Your task to perform on an android device: turn pop-ups off in chrome Image 0: 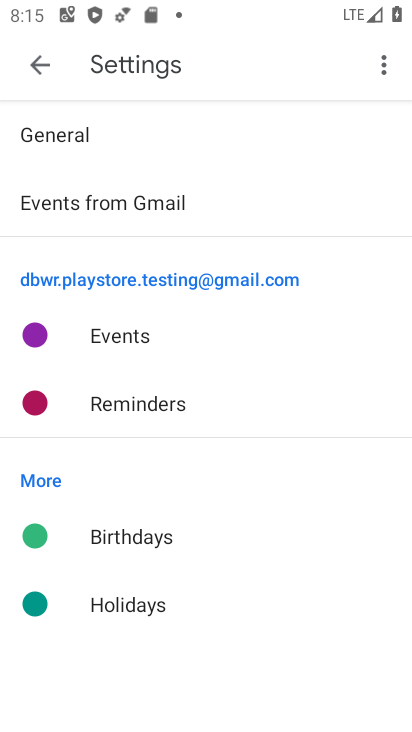
Step 0: press home button
Your task to perform on an android device: turn pop-ups off in chrome Image 1: 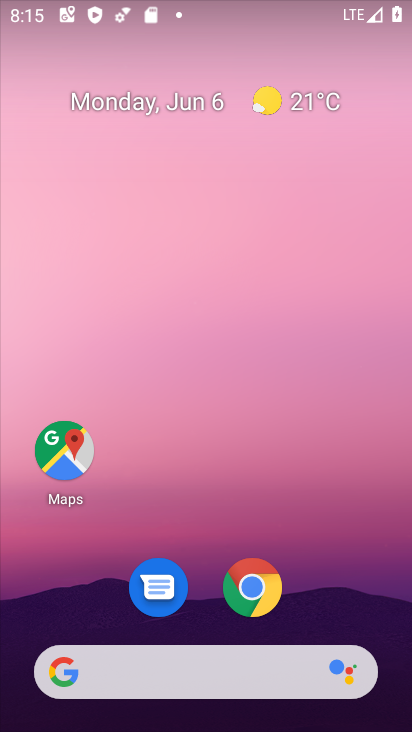
Step 1: click (274, 586)
Your task to perform on an android device: turn pop-ups off in chrome Image 2: 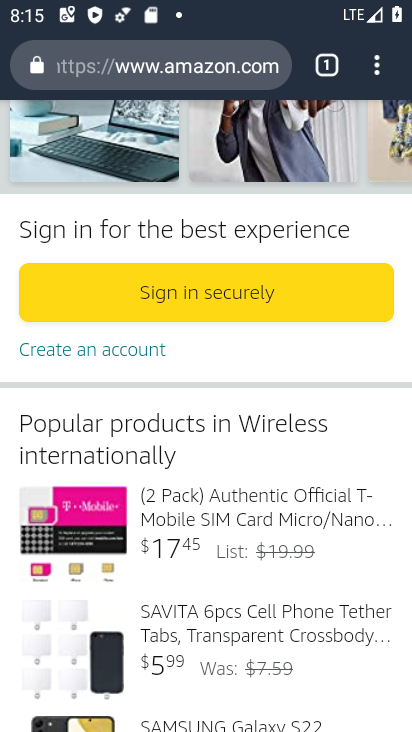
Step 2: click (381, 63)
Your task to perform on an android device: turn pop-ups off in chrome Image 3: 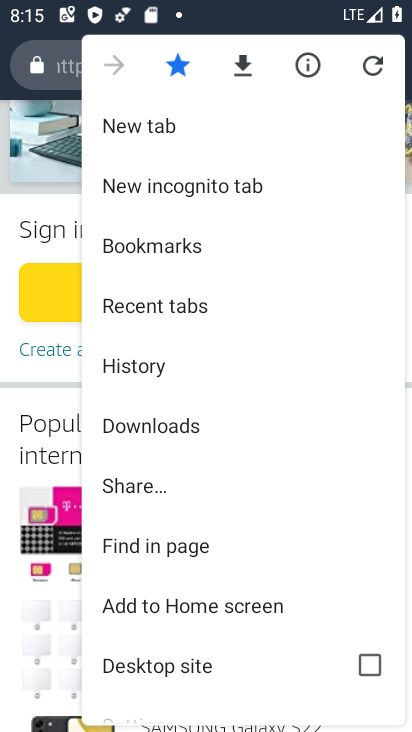
Step 3: drag from (165, 693) to (152, 163)
Your task to perform on an android device: turn pop-ups off in chrome Image 4: 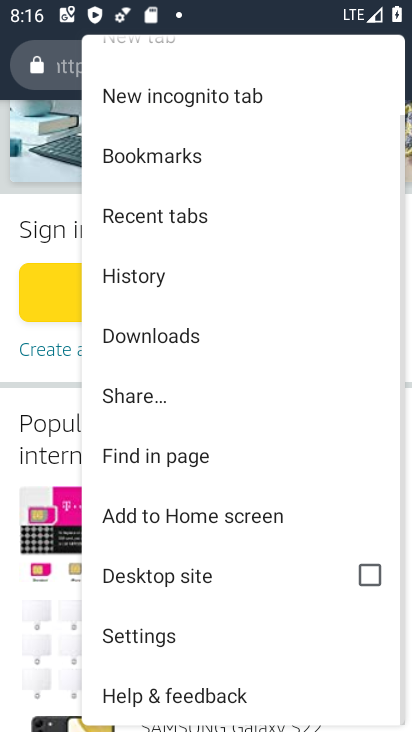
Step 4: click (150, 652)
Your task to perform on an android device: turn pop-ups off in chrome Image 5: 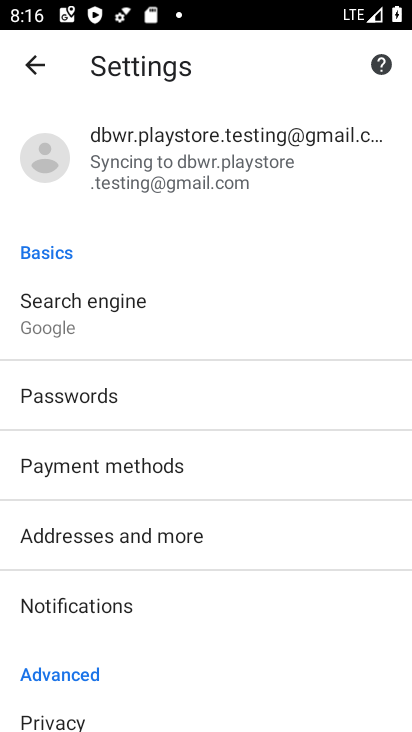
Step 5: drag from (229, 683) to (185, 3)
Your task to perform on an android device: turn pop-ups off in chrome Image 6: 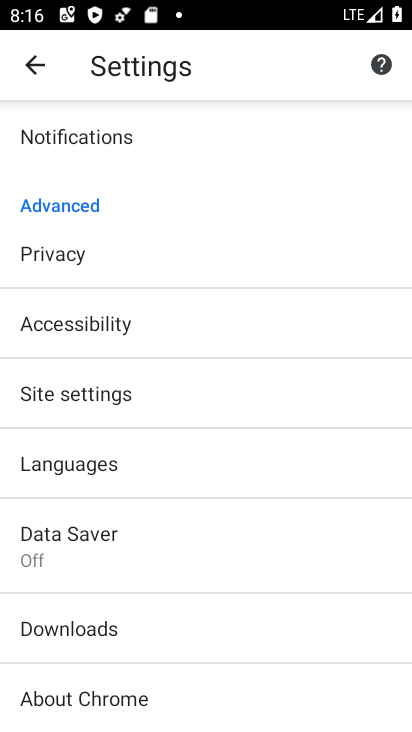
Step 6: click (153, 385)
Your task to perform on an android device: turn pop-ups off in chrome Image 7: 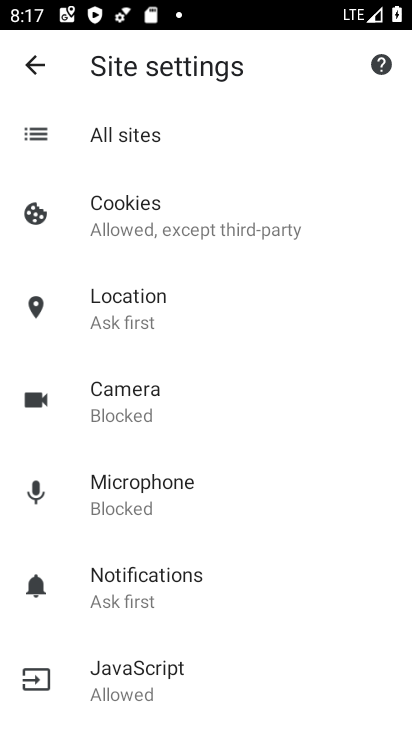
Step 7: drag from (245, 666) to (283, 176)
Your task to perform on an android device: turn pop-ups off in chrome Image 8: 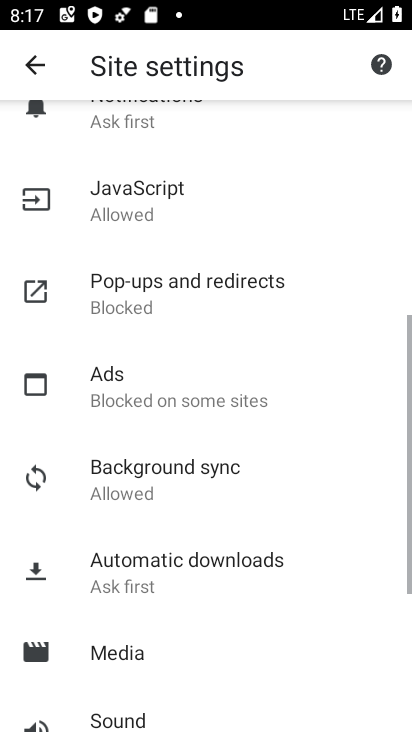
Step 8: click (238, 300)
Your task to perform on an android device: turn pop-ups off in chrome Image 9: 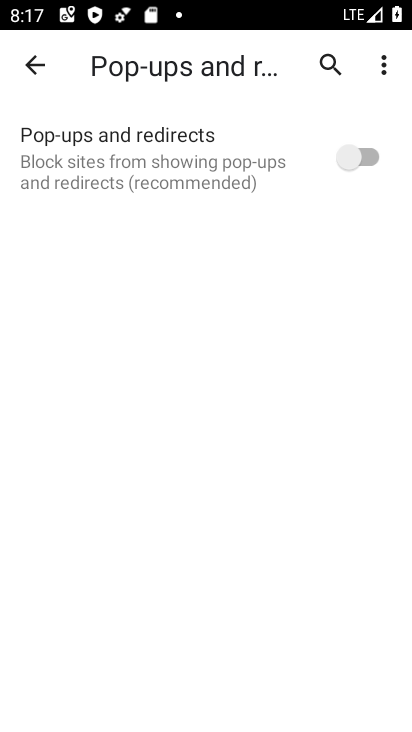
Step 9: task complete